Your task to perform on an android device: turn vacation reply on in the gmail app Image 0: 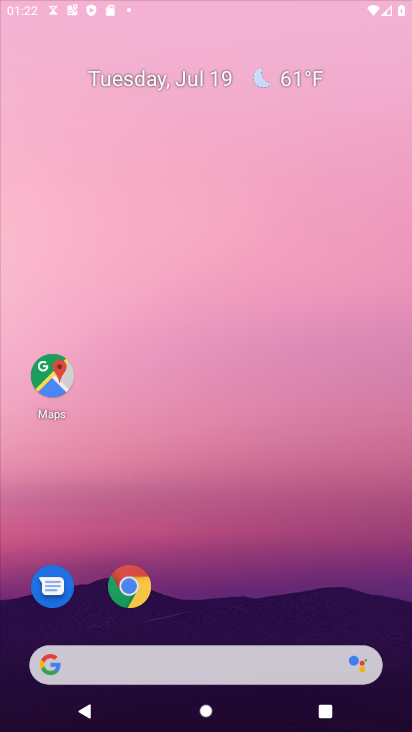
Step 0: press home button
Your task to perform on an android device: turn vacation reply on in the gmail app Image 1: 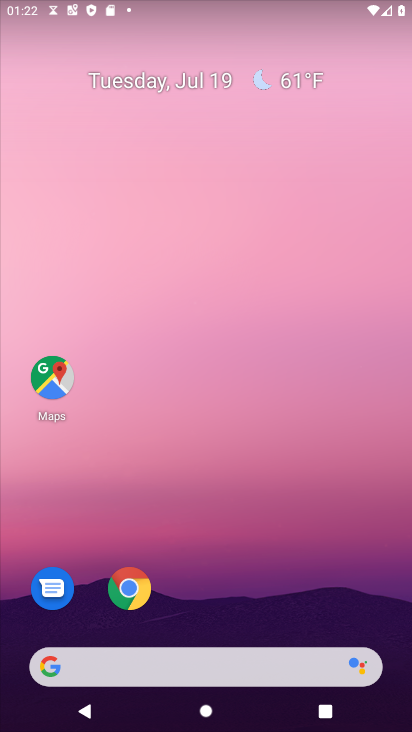
Step 1: drag from (314, 680) to (246, 249)
Your task to perform on an android device: turn vacation reply on in the gmail app Image 2: 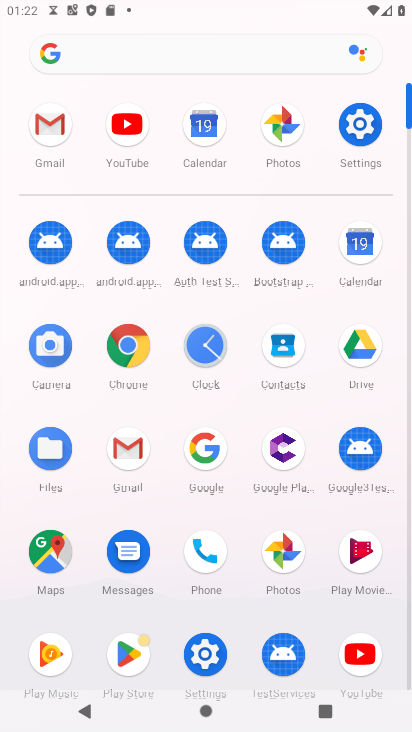
Step 2: click (122, 460)
Your task to perform on an android device: turn vacation reply on in the gmail app Image 3: 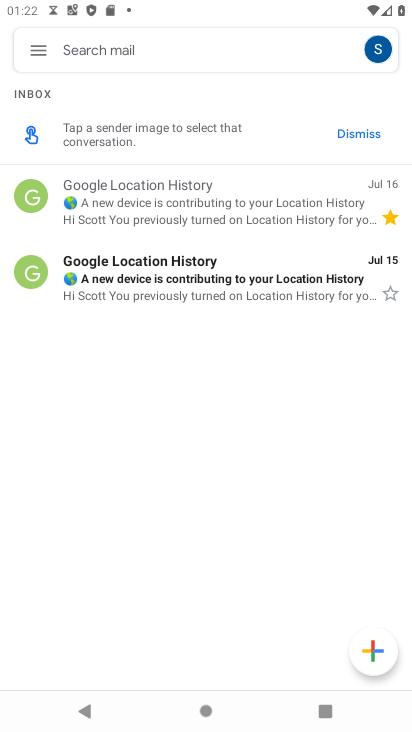
Step 3: click (31, 48)
Your task to perform on an android device: turn vacation reply on in the gmail app Image 4: 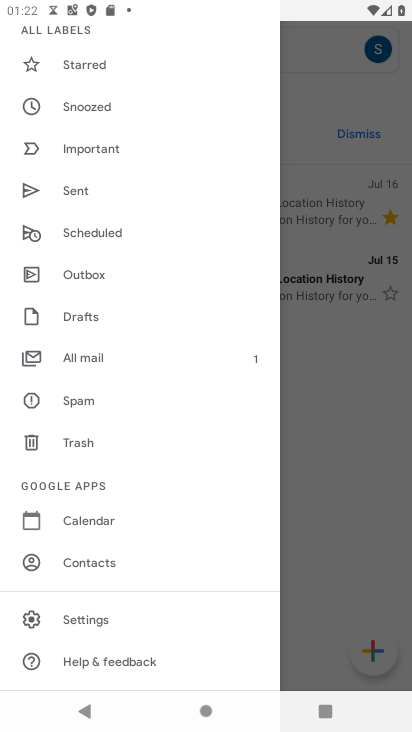
Step 4: click (101, 620)
Your task to perform on an android device: turn vacation reply on in the gmail app Image 5: 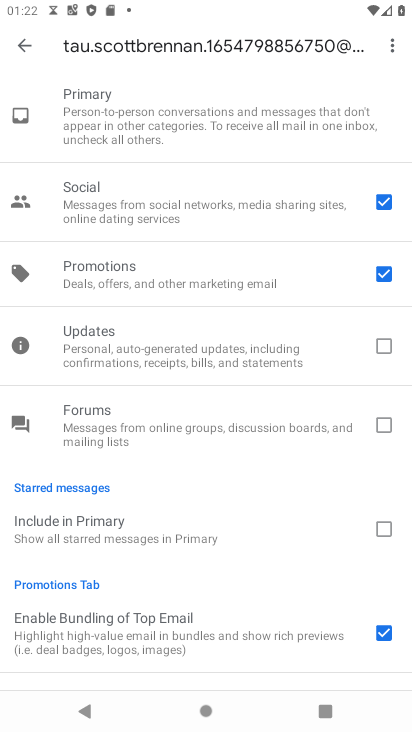
Step 5: drag from (150, 559) to (167, 418)
Your task to perform on an android device: turn vacation reply on in the gmail app Image 6: 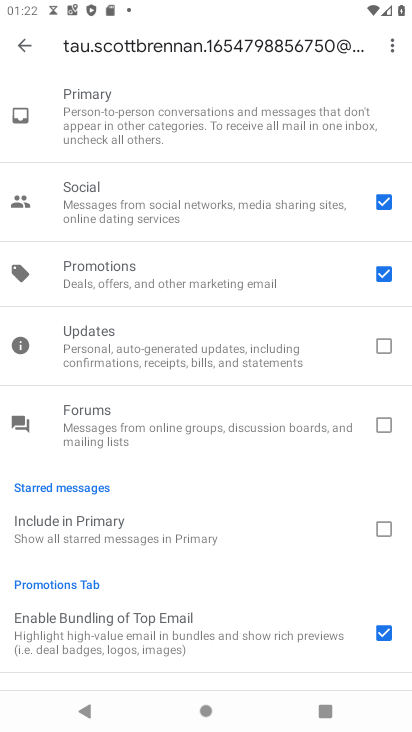
Step 6: click (23, 42)
Your task to perform on an android device: turn vacation reply on in the gmail app Image 7: 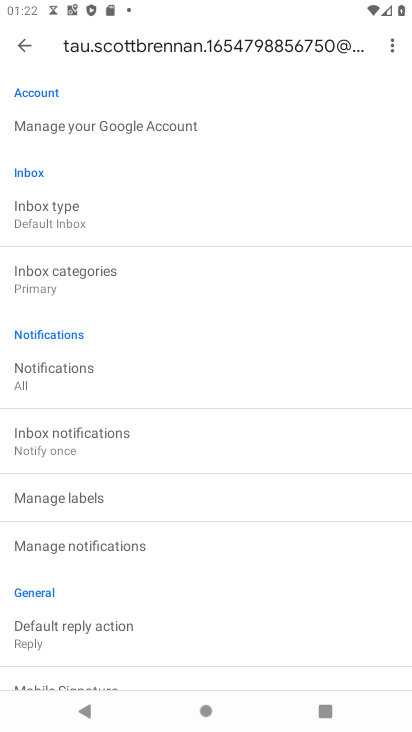
Step 7: drag from (126, 614) to (117, 178)
Your task to perform on an android device: turn vacation reply on in the gmail app Image 8: 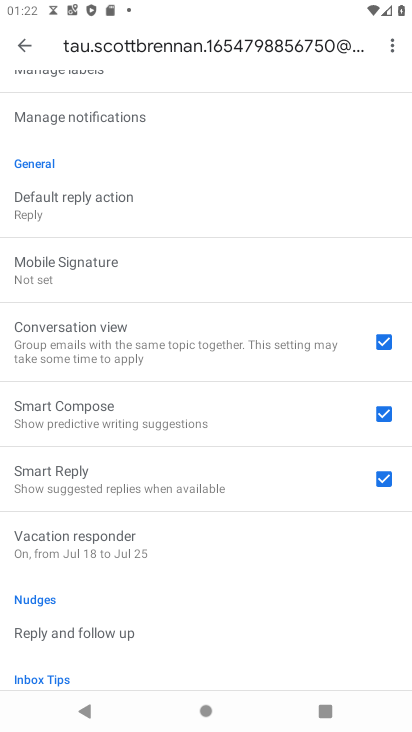
Step 8: click (116, 554)
Your task to perform on an android device: turn vacation reply on in the gmail app Image 9: 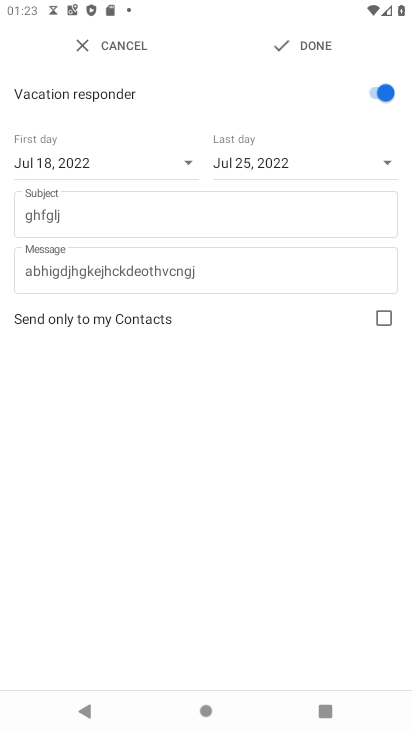
Step 9: task complete